Your task to perform on an android device: turn off picture-in-picture Image 0: 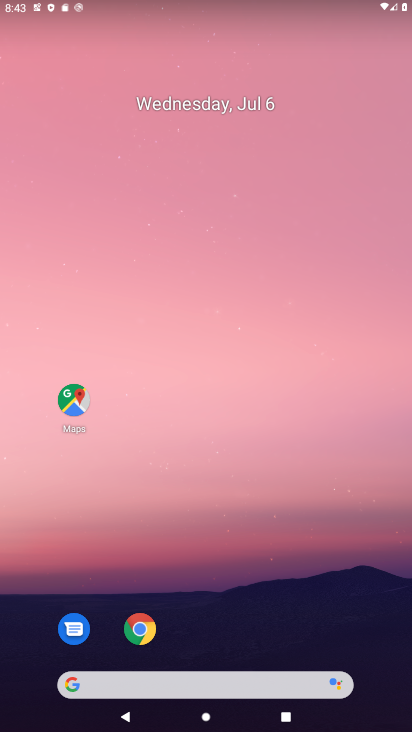
Step 0: click (140, 627)
Your task to perform on an android device: turn off picture-in-picture Image 1: 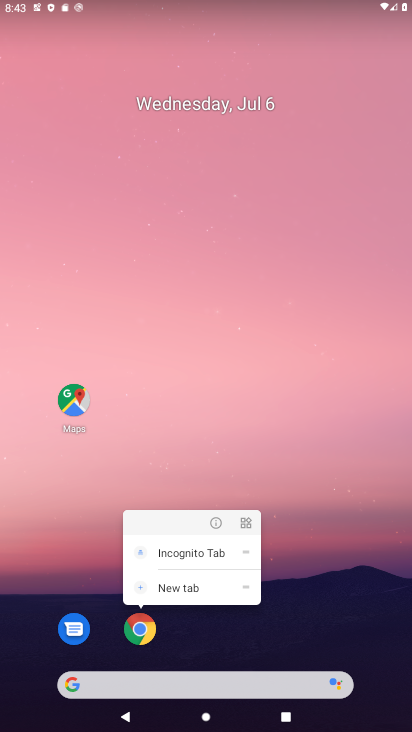
Step 1: click (213, 525)
Your task to perform on an android device: turn off picture-in-picture Image 2: 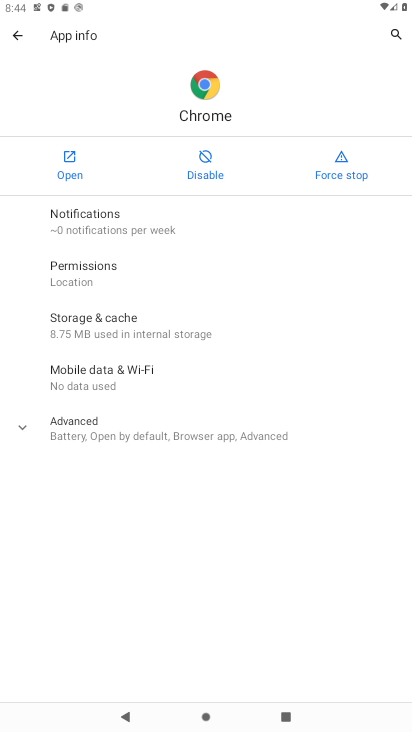
Step 2: click (86, 421)
Your task to perform on an android device: turn off picture-in-picture Image 3: 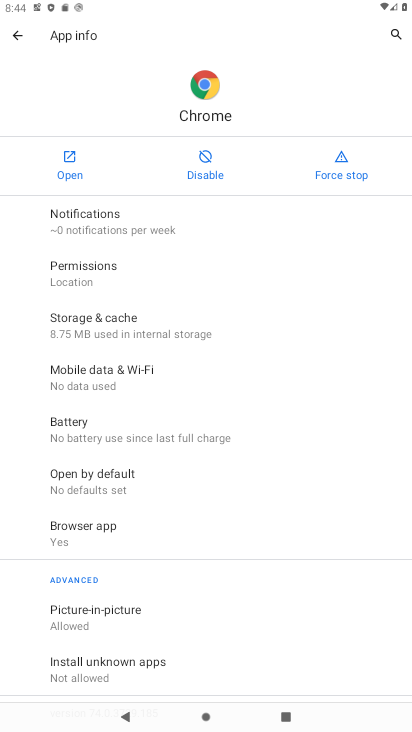
Step 3: drag from (147, 582) to (251, 464)
Your task to perform on an android device: turn off picture-in-picture Image 4: 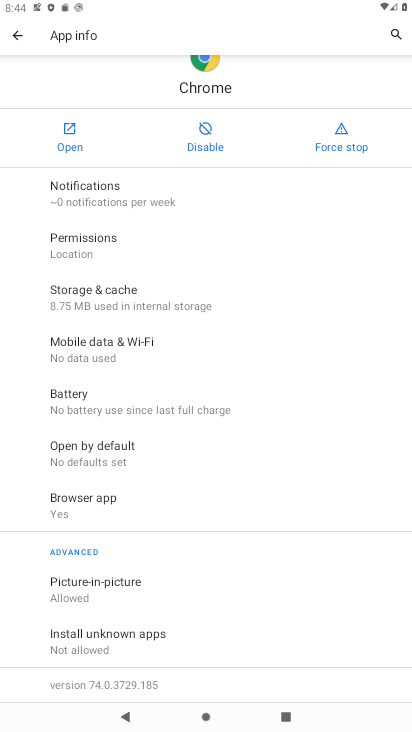
Step 4: click (105, 588)
Your task to perform on an android device: turn off picture-in-picture Image 5: 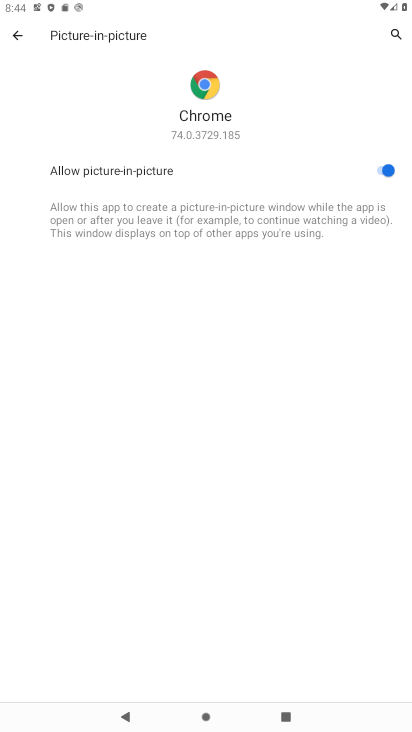
Step 5: click (383, 172)
Your task to perform on an android device: turn off picture-in-picture Image 6: 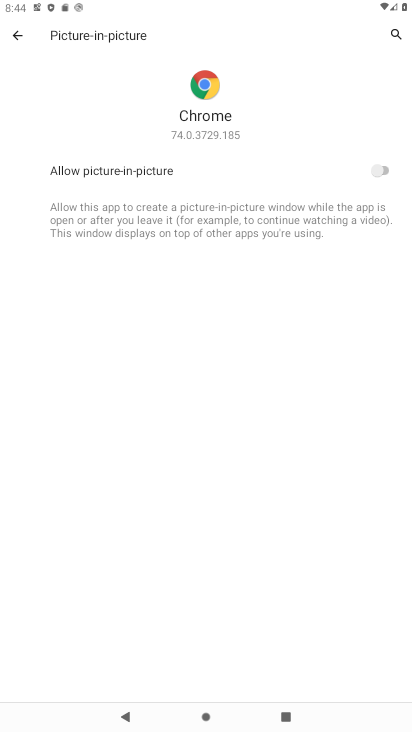
Step 6: task complete